Your task to perform on an android device: Add bose quietcomfort 35 to the cart on walmart.com, then select checkout. Image 0: 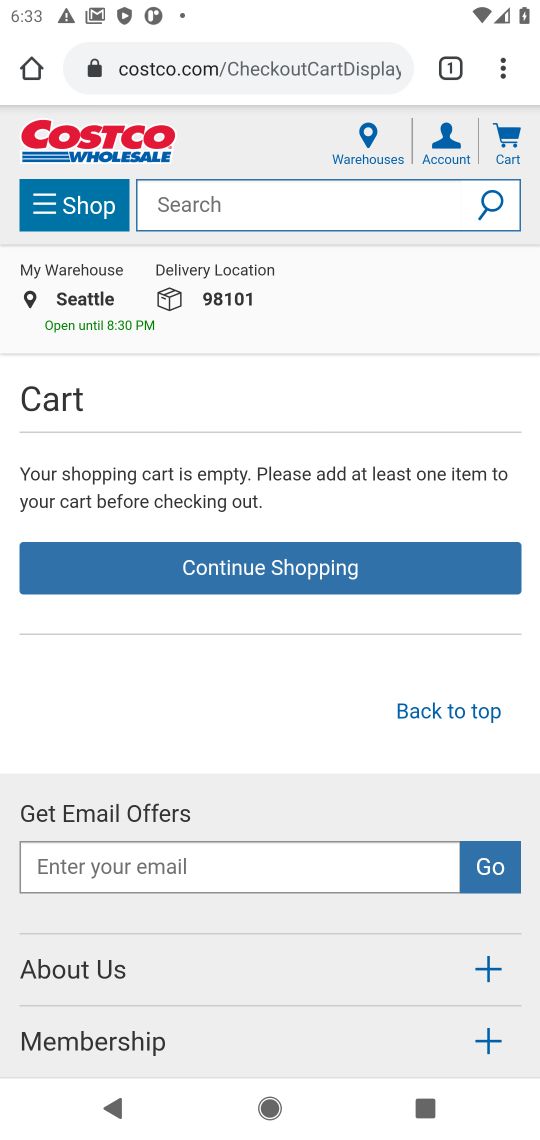
Step 0: press home button
Your task to perform on an android device: Add bose quietcomfort 35 to the cart on walmart.com, then select checkout. Image 1: 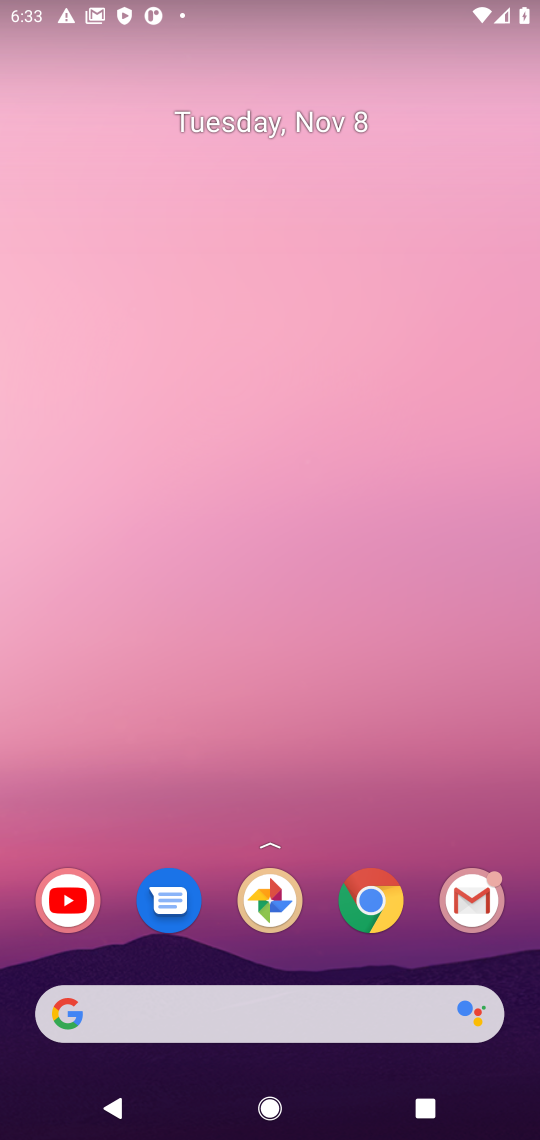
Step 1: click (382, 893)
Your task to perform on an android device: Add bose quietcomfort 35 to the cart on walmart.com, then select checkout. Image 2: 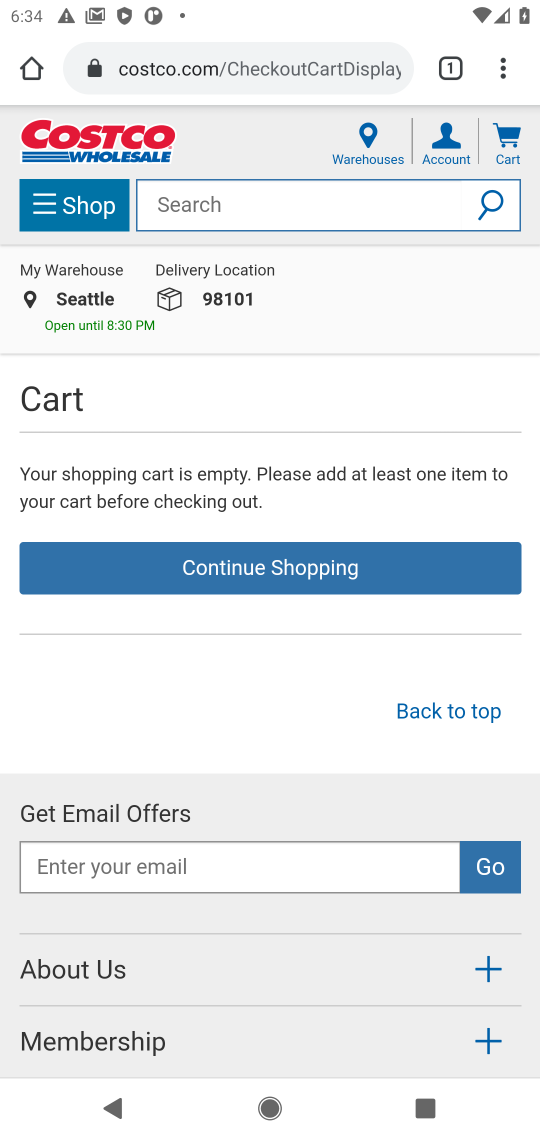
Step 2: click (226, 66)
Your task to perform on an android device: Add bose quietcomfort 35 to the cart on walmart.com, then select checkout. Image 3: 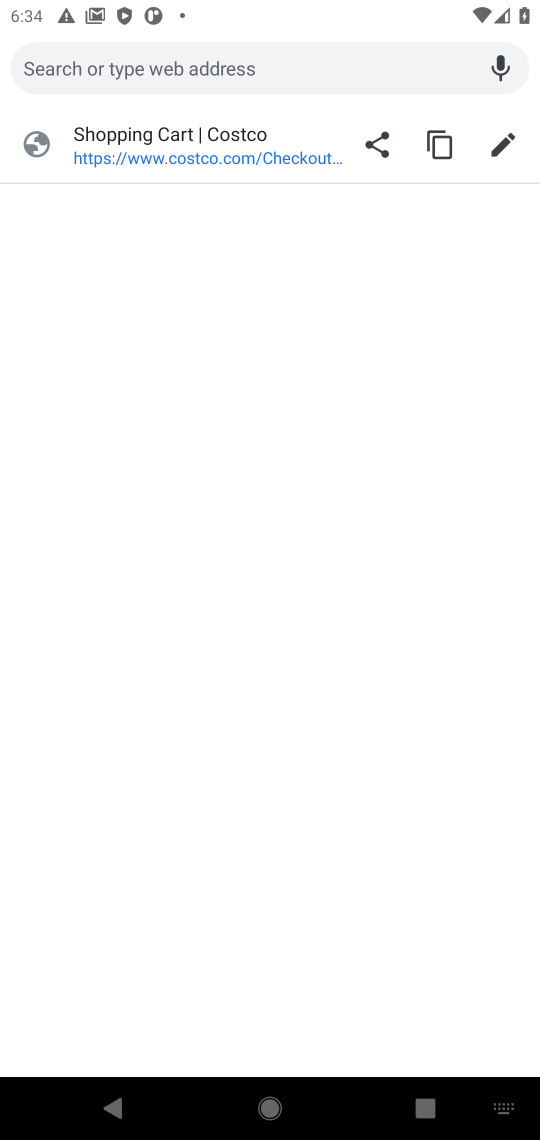
Step 3: type "walmart"
Your task to perform on an android device: Add bose quietcomfort 35 to the cart on walmart.com, then select checkout. Image 4: 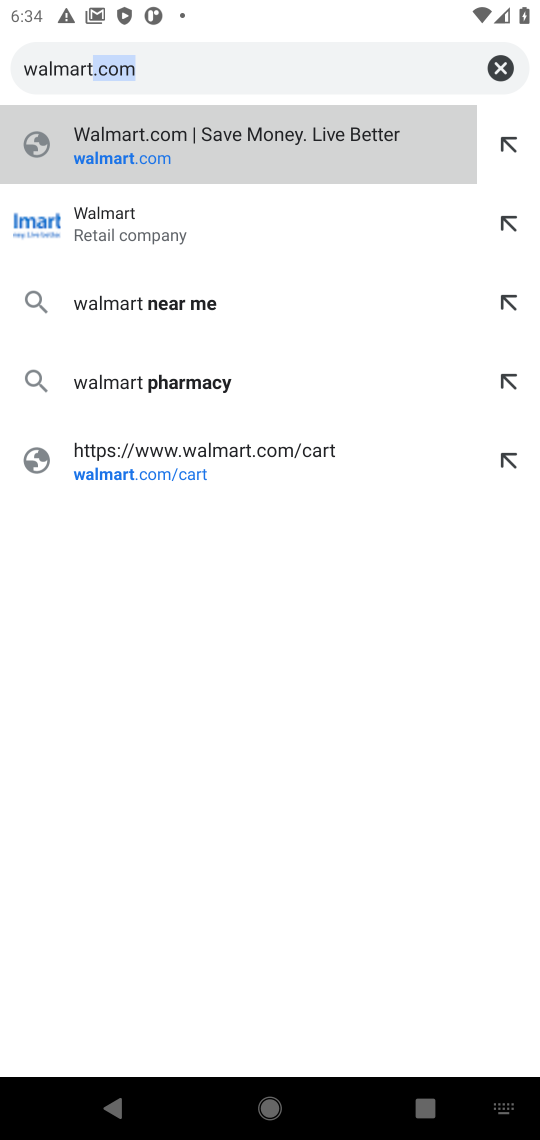
Step 4: click (86, 204)
Your task to perform on an android device: Add bose quietcomfort 35 to the cart on walmart.com, then select checkout. Image 5: 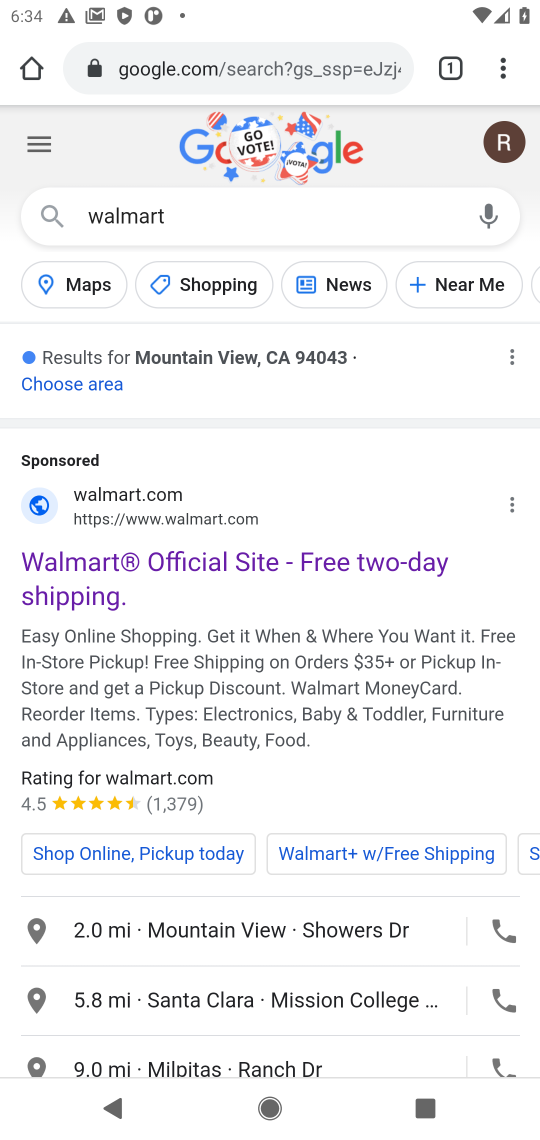
Step 5: drag from (269, 862) to (263, 406)
Your task to perform on an android device: Add bose quietcomfort 35 to the cart on walmart.com, then select checkout. Image 6: 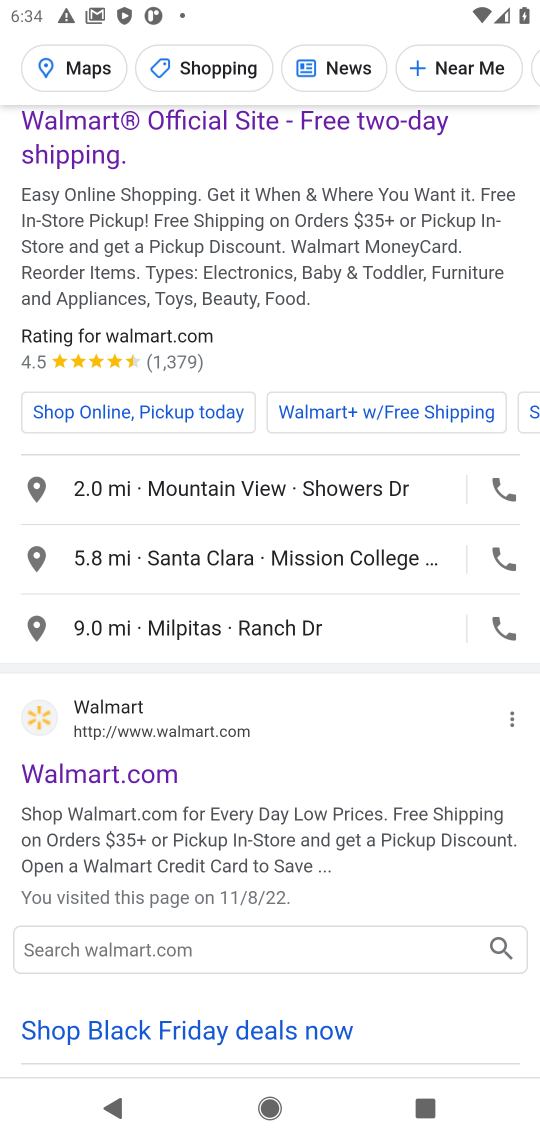
Step 6: click (84, 776)
Your task to perform on an android device: Add bose quietcomfort 35 to the cart on walmart.com, then select checkout. Image 7: 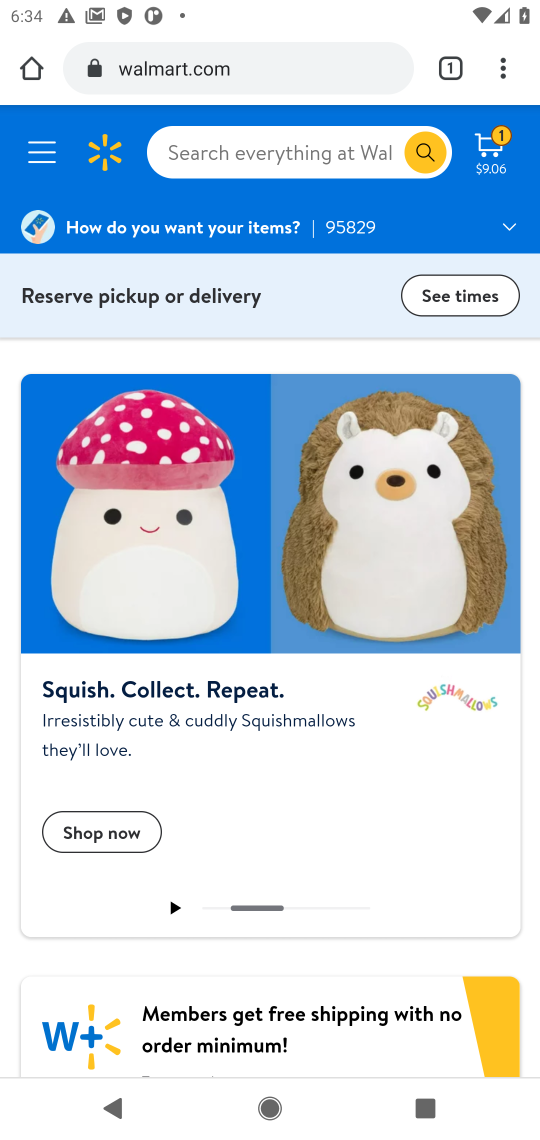
Step 7: click (216, 158)
Your task to perform on an android device: Add bose quietcomfort 35 to the cart on walmart.com, then select checkout. Image 8: 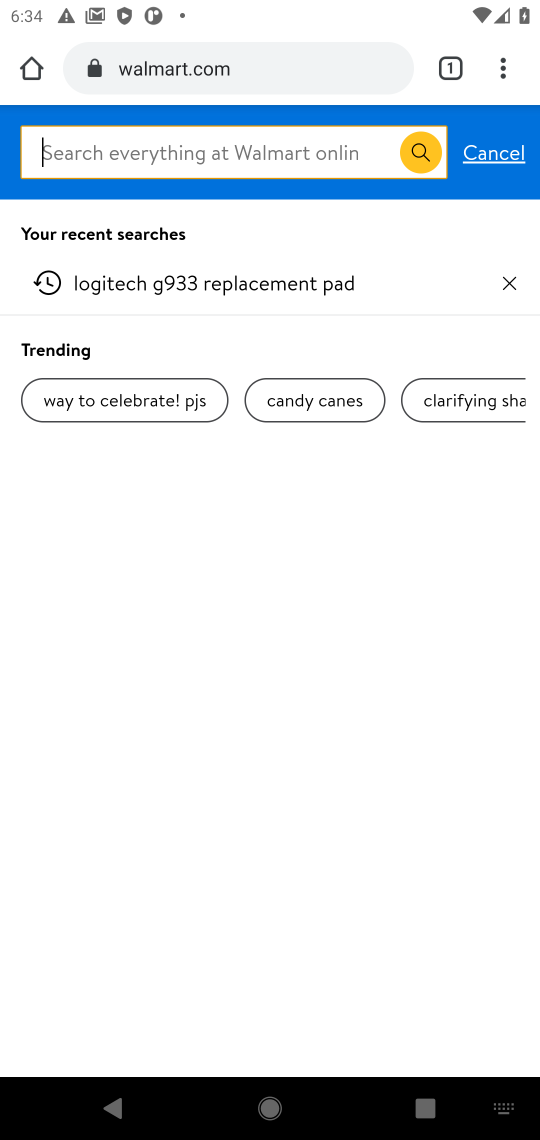
Step 8: type "bose quietcomfort 35"
Your task to perform on an android device: Add bose quietcomfort 35 to the cart on walmart.com, then select checkout. Image 9: 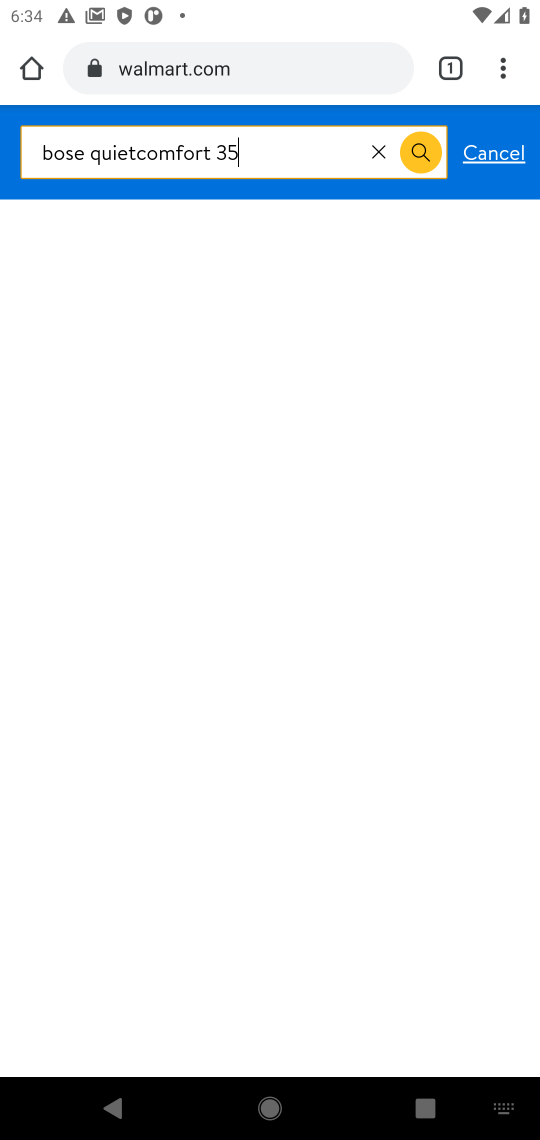
Step 9: type ""
Your task to perform on an android device: Add bose quietcomfort 35 to the cart on walmart.com, then select checkout. Image 10: 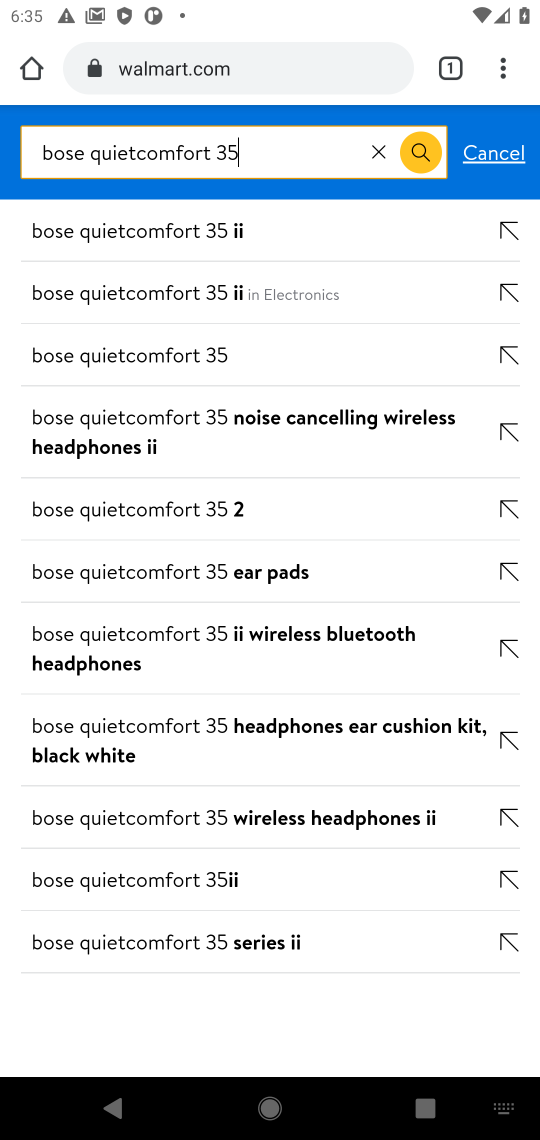
Step 10: click (158, 350)
Your task to perform on an android device: Add bose quietcomfort 35 to the cart on walmart.com, then select checkout. Image 11: 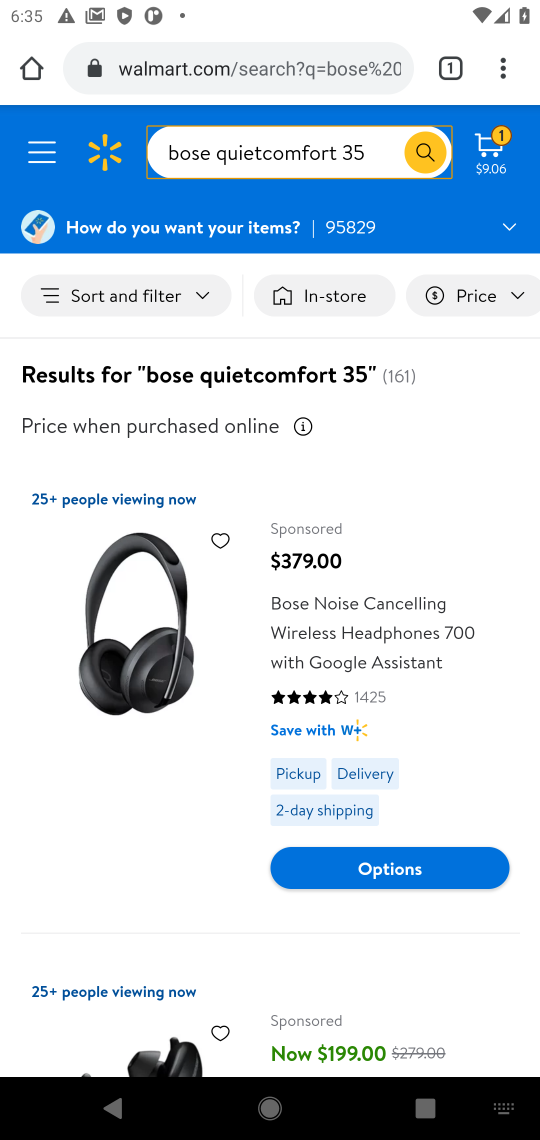
Step 11: drag from (172, 839) to (217, 327)
Your task to perform on an android device: Add bose quietcomfort 35 to the cart on walmart.com, then select checkout. Image 12: 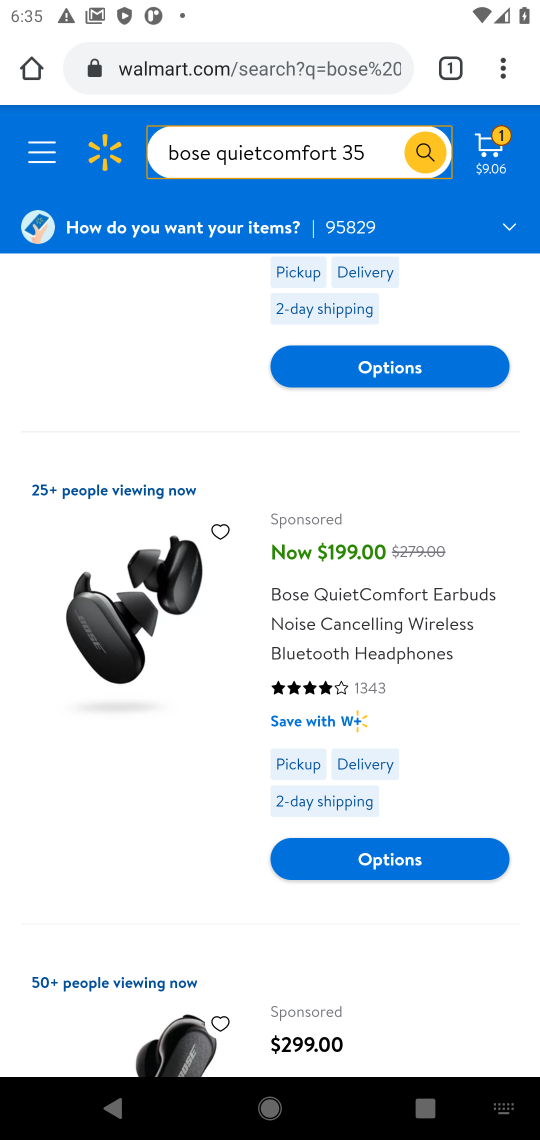
Step 12: click (360, 609)
Your task to perform on an android device: Add bose quietcomfort 35 to the cart on walmart.com, then select checkout. Image 13: 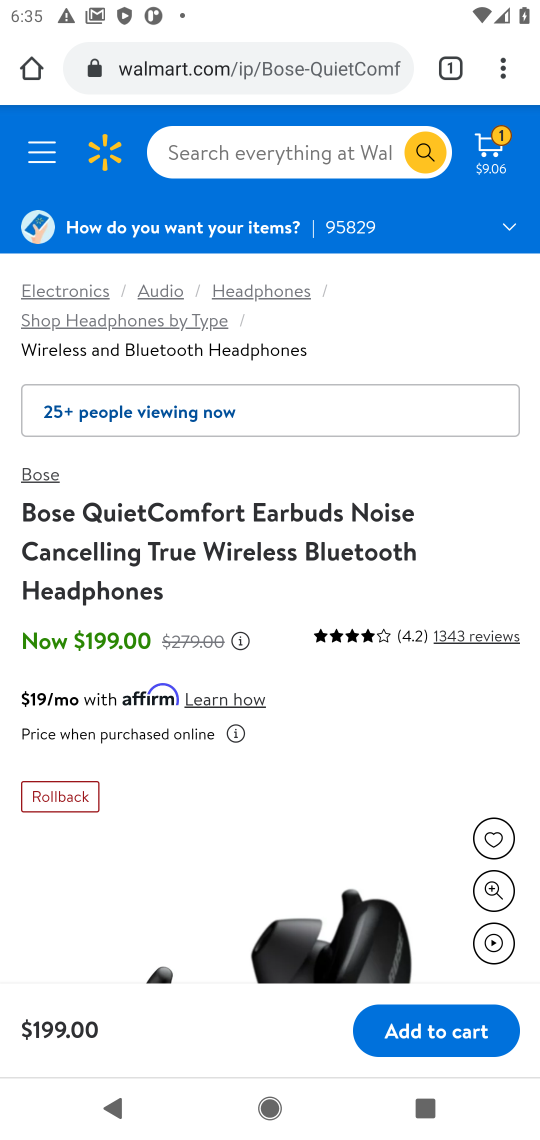
Step 13: drag from (226, 851) to (310, 358)
Your task to perform on an android device: Add bose quietcomfort 35 to the cart on walmart.com, then select checkout. Image 14: 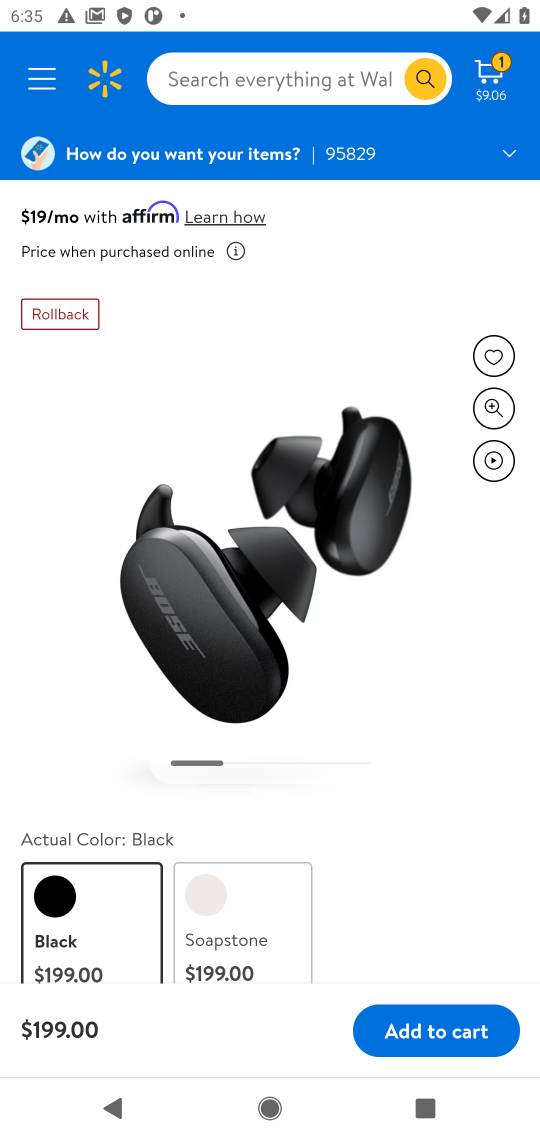
Step 14: click (416, 1027)
Your task to perform on an android device: Add bose quietcomfort 35 to the cart on walmart.com, then select checkout. Image 15: 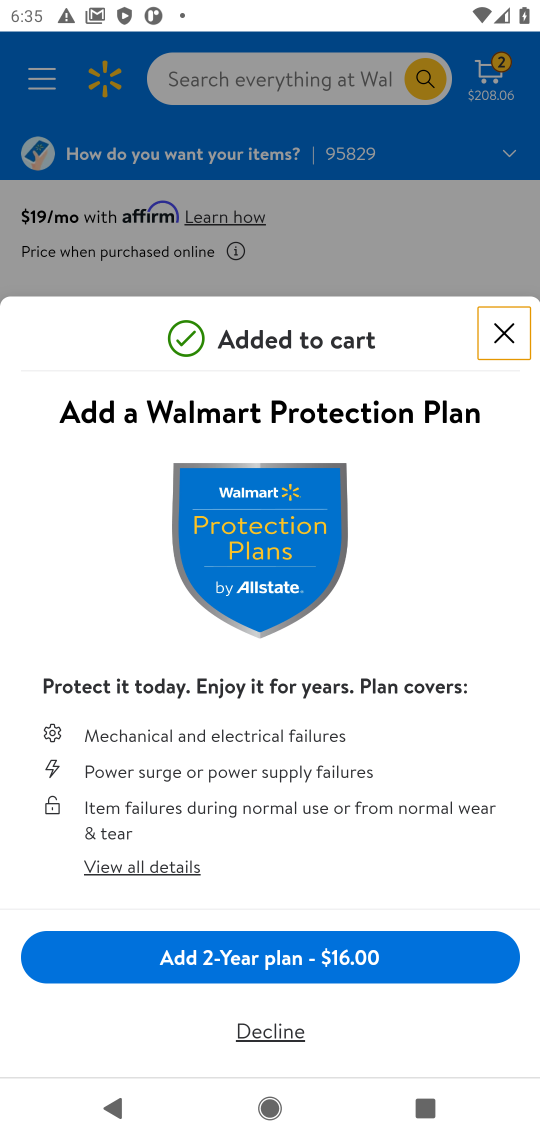
Step 15: click (502, 331)
Your task to perform on an android device: Add bose quietcomfort 35 to the cart on walmart.com, then select checkout. Image 16: 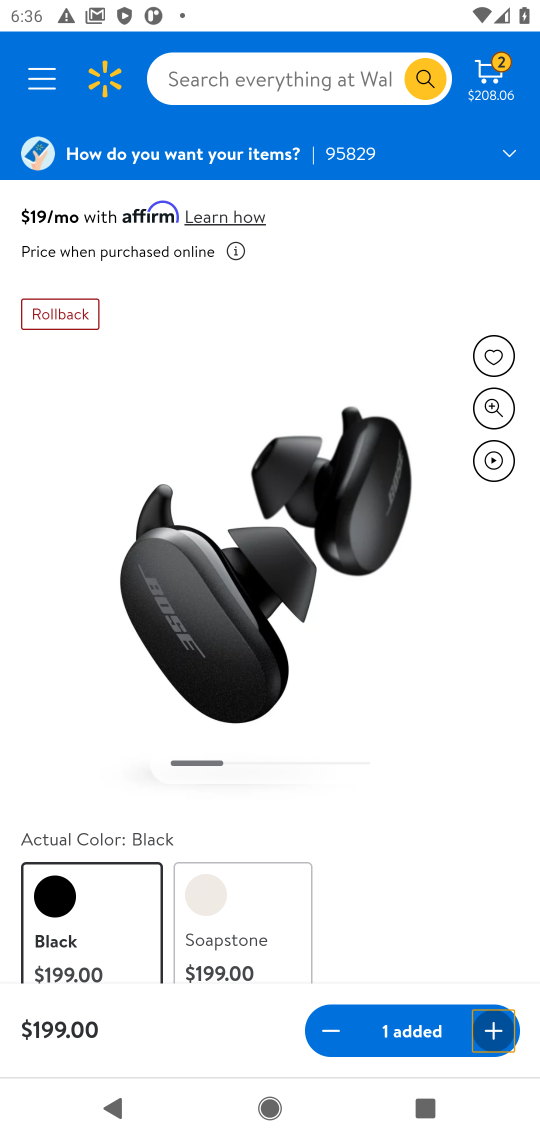
Step 16: click (498, 66)
Your task to perform on an android device: Add bose quietcomfort 35 to the cart on walmart.com, then select checkout. Image 17: 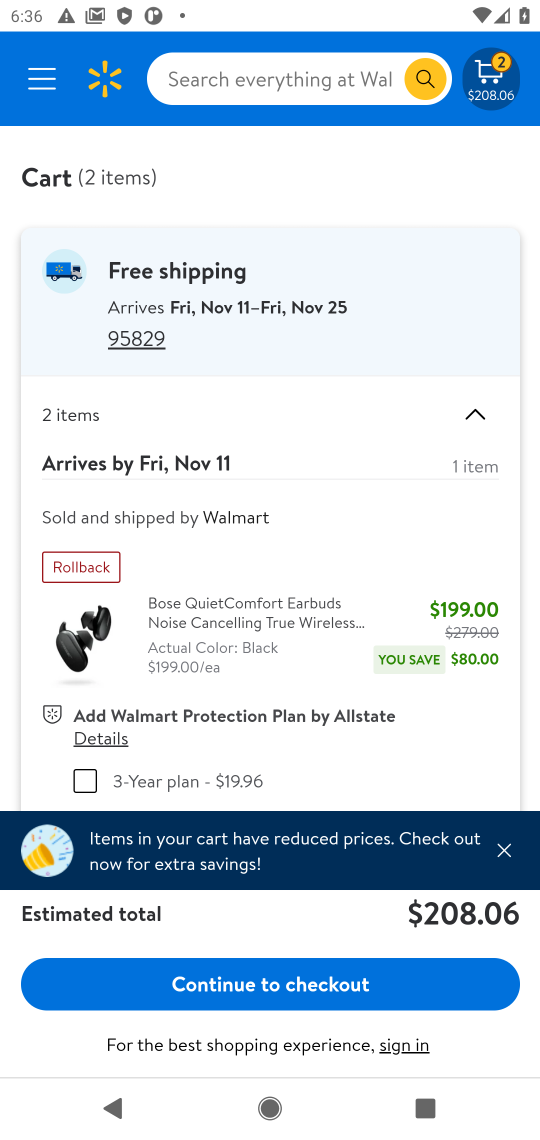
Step 17: click (507, 854)
Your task to perform on an android device: Add bose quietcomfort 35 to the cart on walmart.com, then select checkout. Image 18: 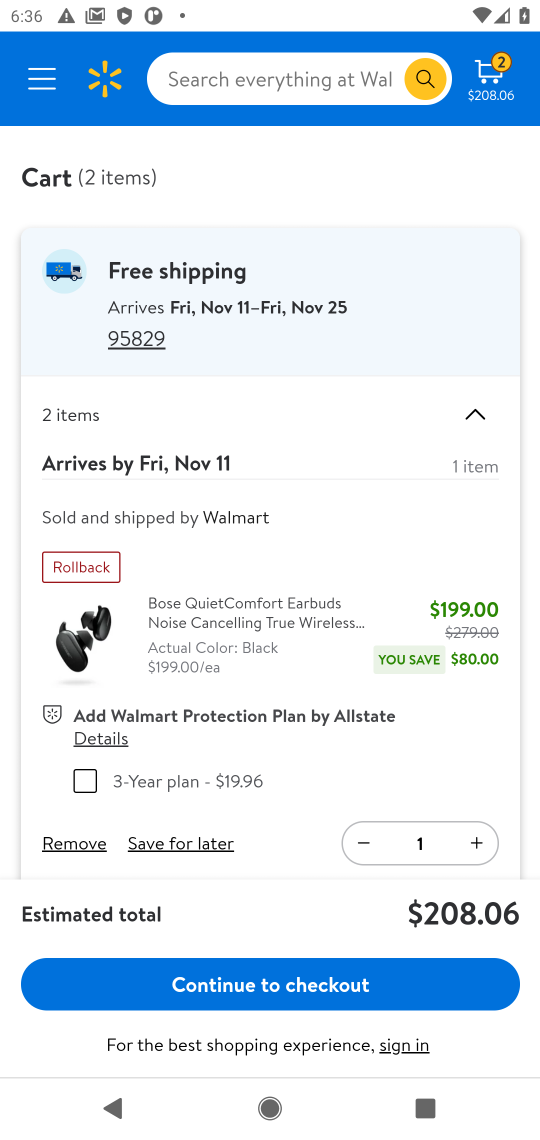
Step 18: click (269, 989)
Your task to perform on an android device: Add bose quietcomfort 35 to the cart on walmart.com, then select checkout. Image 19: 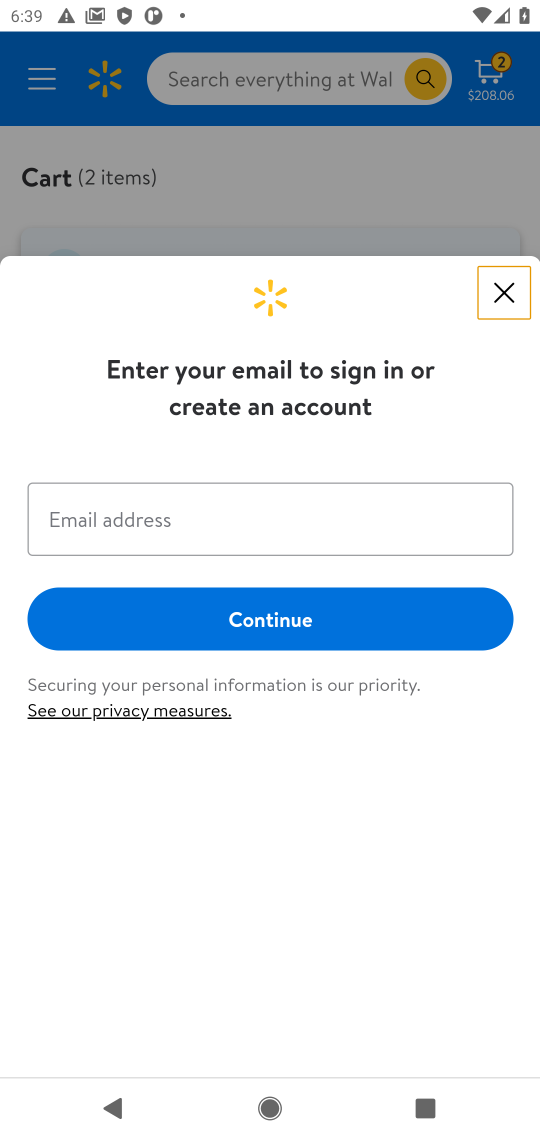
Step 19: task complete